Your task to perform on an android device: open a bookmark in the chrome app Image 0: 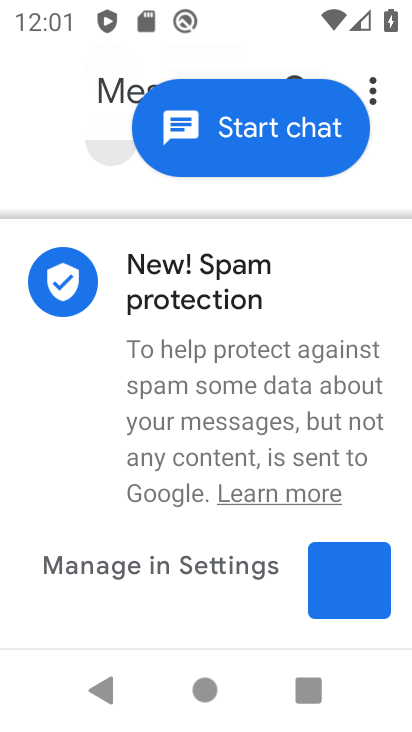
Step 0: press home button
Your task to perform on an android device: open a bookmark in the chrome app Image 1: 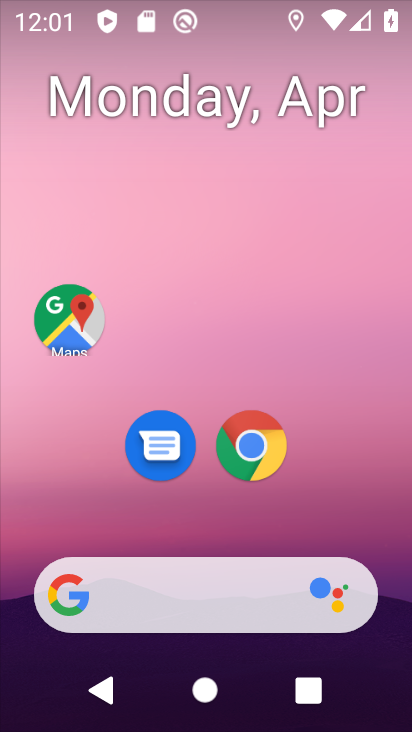
Step 1: click (264, 461)
Your task to perform on an android device: open a bookmark in the chrome app Image 2: 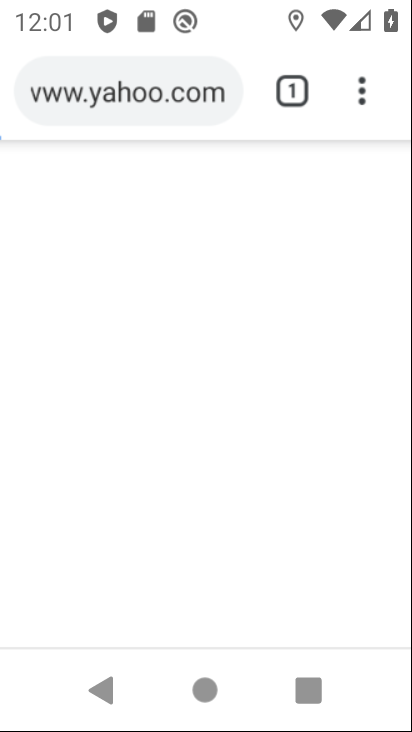
Step 2: click (364, 106)
Your task to perform on an android device: open a bookmark in the chrome app Image 3: 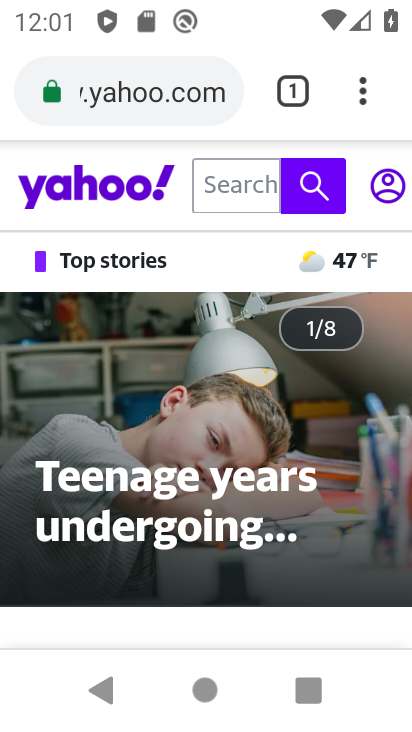
Step 3: click (364, 106)
Your task to perform on an android device: open a bookmark in the chrome app Image 4: 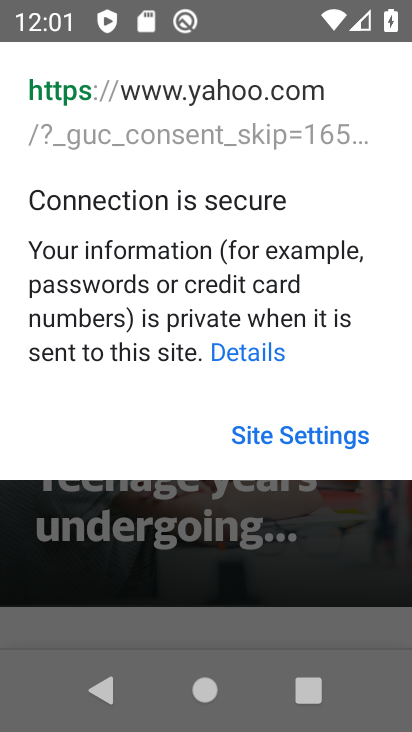
Step 4: click (324, 552)
Your task to perform on an android device: open a bookmark in the chrome app Image 5: 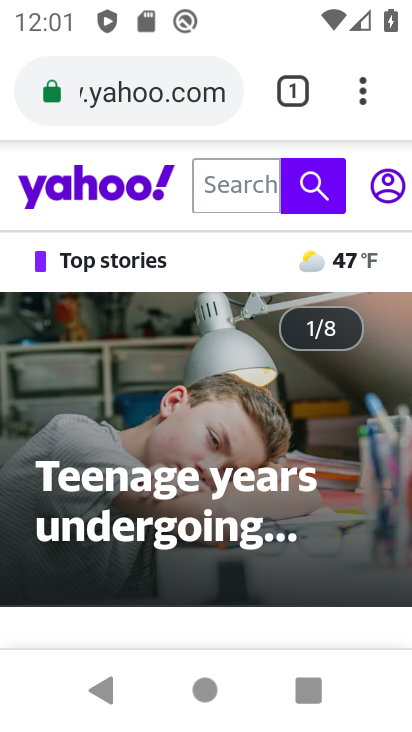
Step 5: click (365, 129)
Your task to perform on an android device: open a bookmark in the chrome app Image 6: 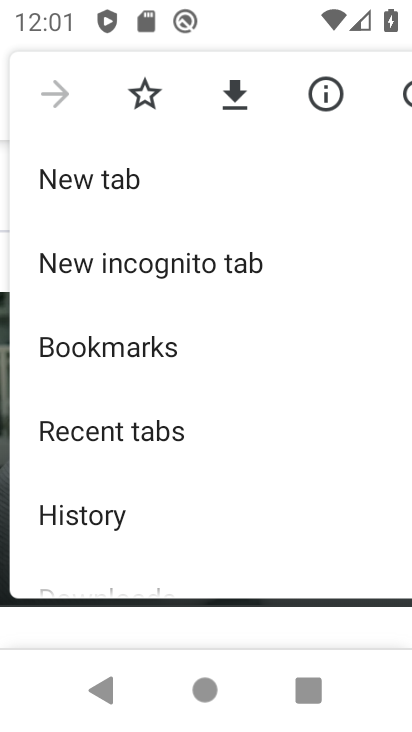
Step 6: drag from (227, 550) to (207, 470)
Your task to perform on an android device: open a bookmark in the chrome app Image 7: 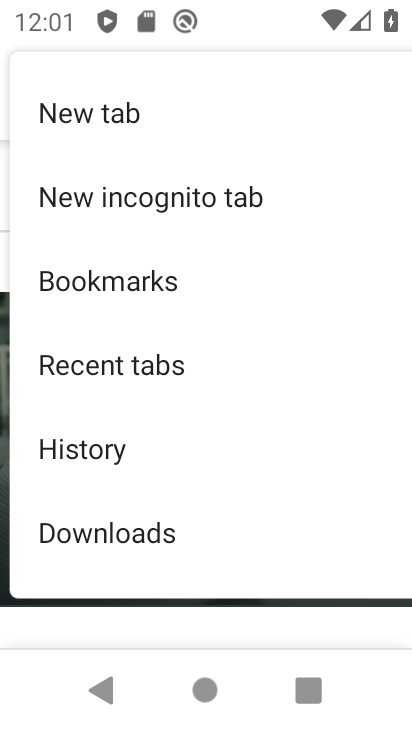
Step 7: click (113, 289)
Your task to perform on an android device: open a bookmark in the chrome app Image 8: 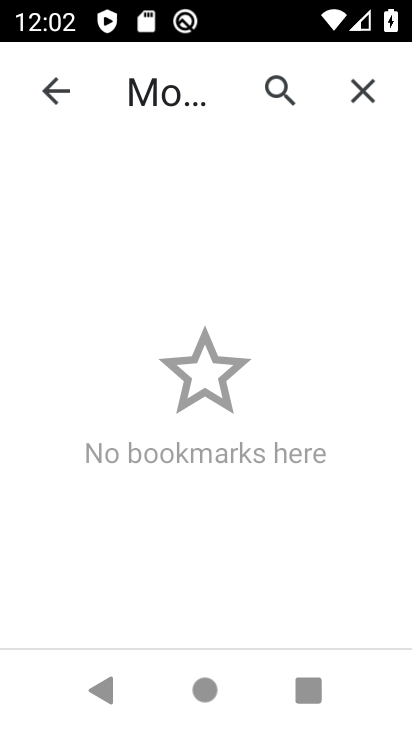
Step 8: task complete